Your task to perform on an android device: Go to Amazon Image 0: 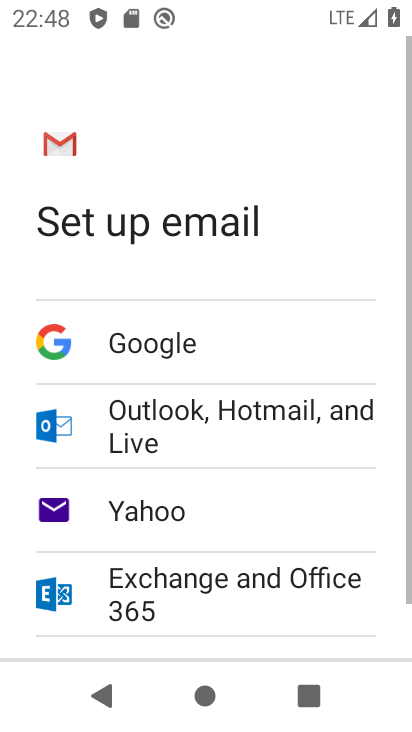
Step 0: press home button
Your task to perform on an android device: Go to Amazon Image 1: 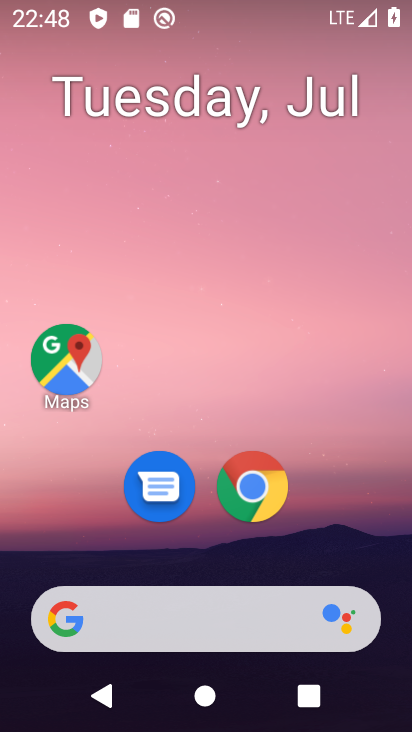
Step 1: drag from (359, 536) to (361, 216)
Your task to perform on an android device: Go to Amazon Image 2: 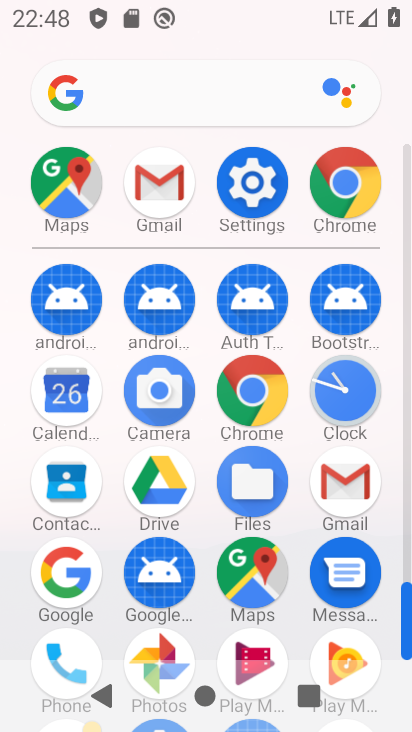
Step 2: click (258, 378)
Your task to perform on an android device: Go to Amazon Image 3: 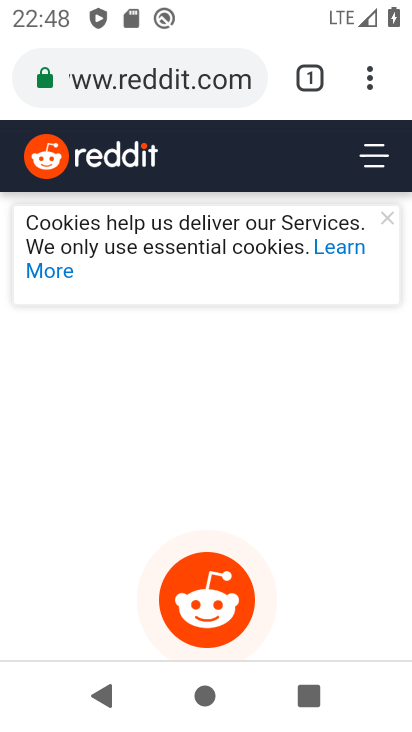
Step 3: click (203, 92)
Your task to perform on an android device: Go to Amazon Image 4: 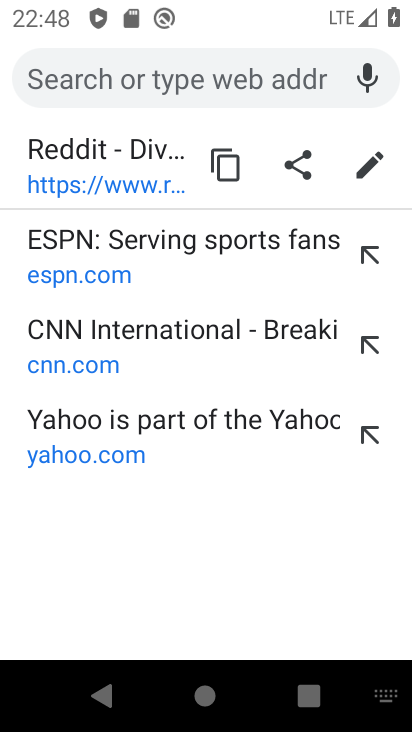
Step 4: type "amazon"
Your task to perform on an android device: Go to Amazon Image 5: 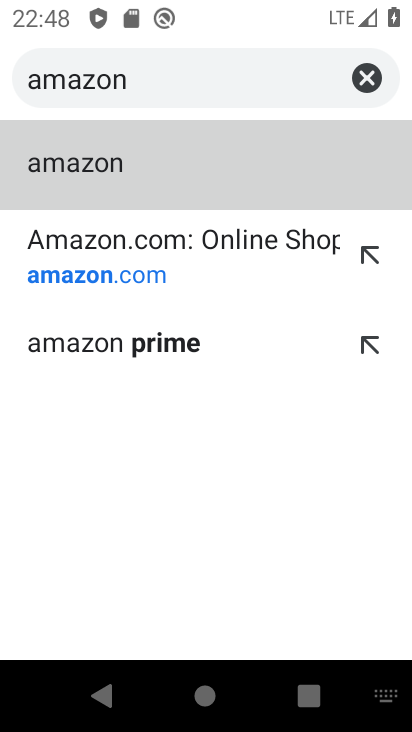
Step 5: click (179, 158)
Your task to perform on an android device: Go to Amazon Image 6: 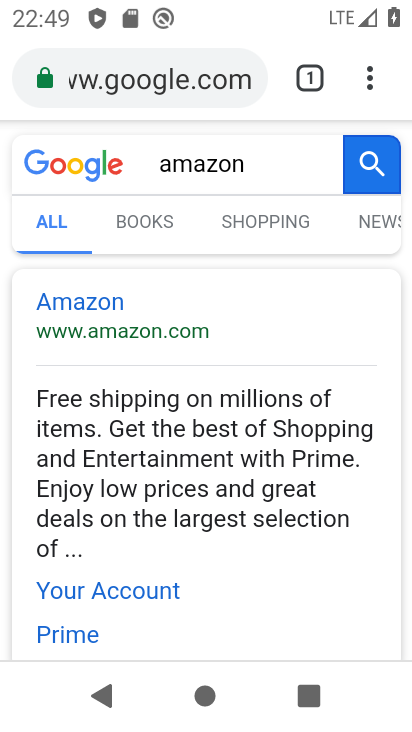
Step 6: task complete